Your task to perform on an android device: check out phone information Image 0: 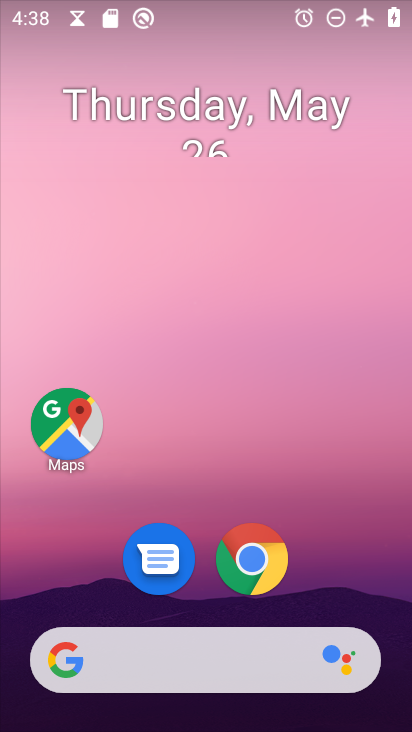
Step 0: drag from (326, 552) to (218, 6)
Your task to perform on an android device: check out phone information Image 1: 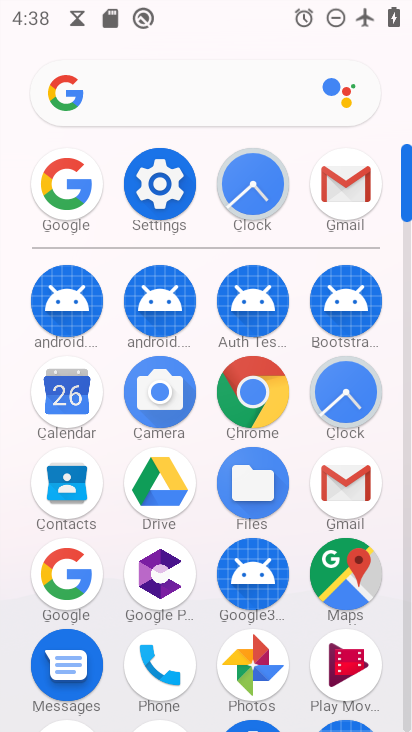
Step 1: click (156, 190)
Your task to perform on an android device: check out phone information Image 2: 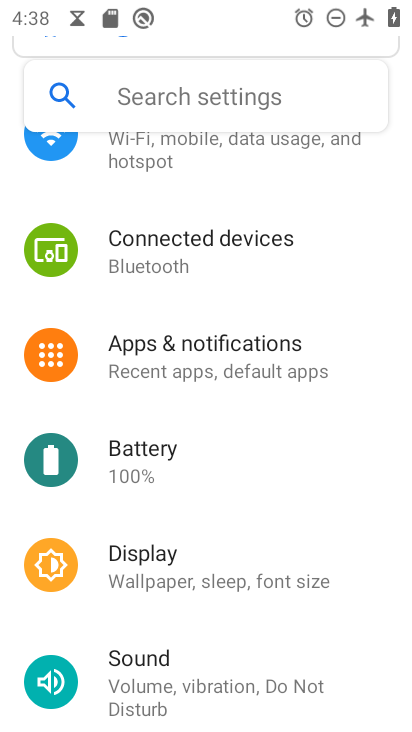
Step 2: drag from (219, 622) to (231, 86)
Your task to perform on an android device: check out phone information Image 3: 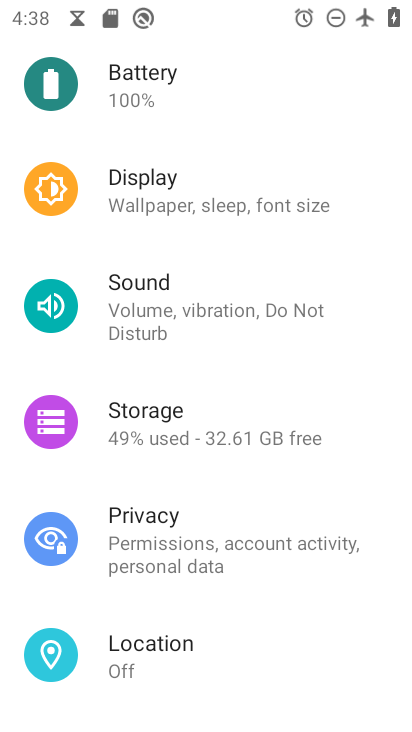
Step 3: drag from (239, 647) to (239, 125)
Your task to perform on an android device: check out phone information Image 4: 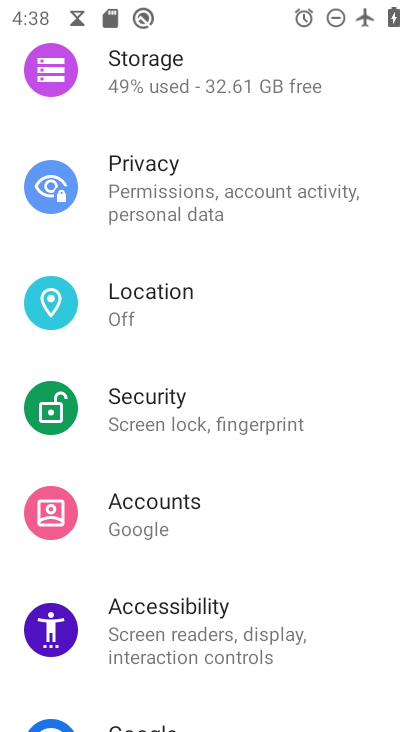
Step 4: drag from (226, 663) to (227, 56)
Your task to perform on an android device: check out phone information Image 5: 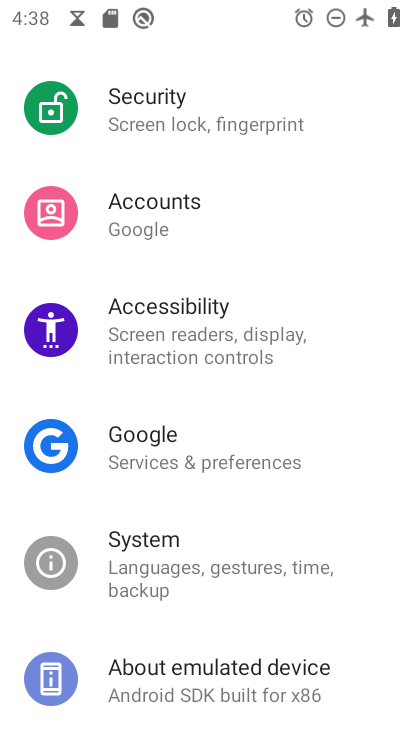
Step 5: click (207, 702)
Your task to perform on an android device: check out phone information Image 6: 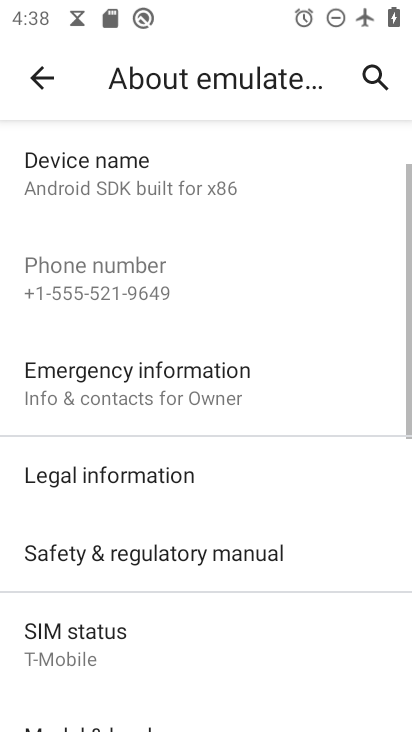
Step 6: task complete